Your task to perform on an android device: Set the phone to "Do not disturb". Image 0: 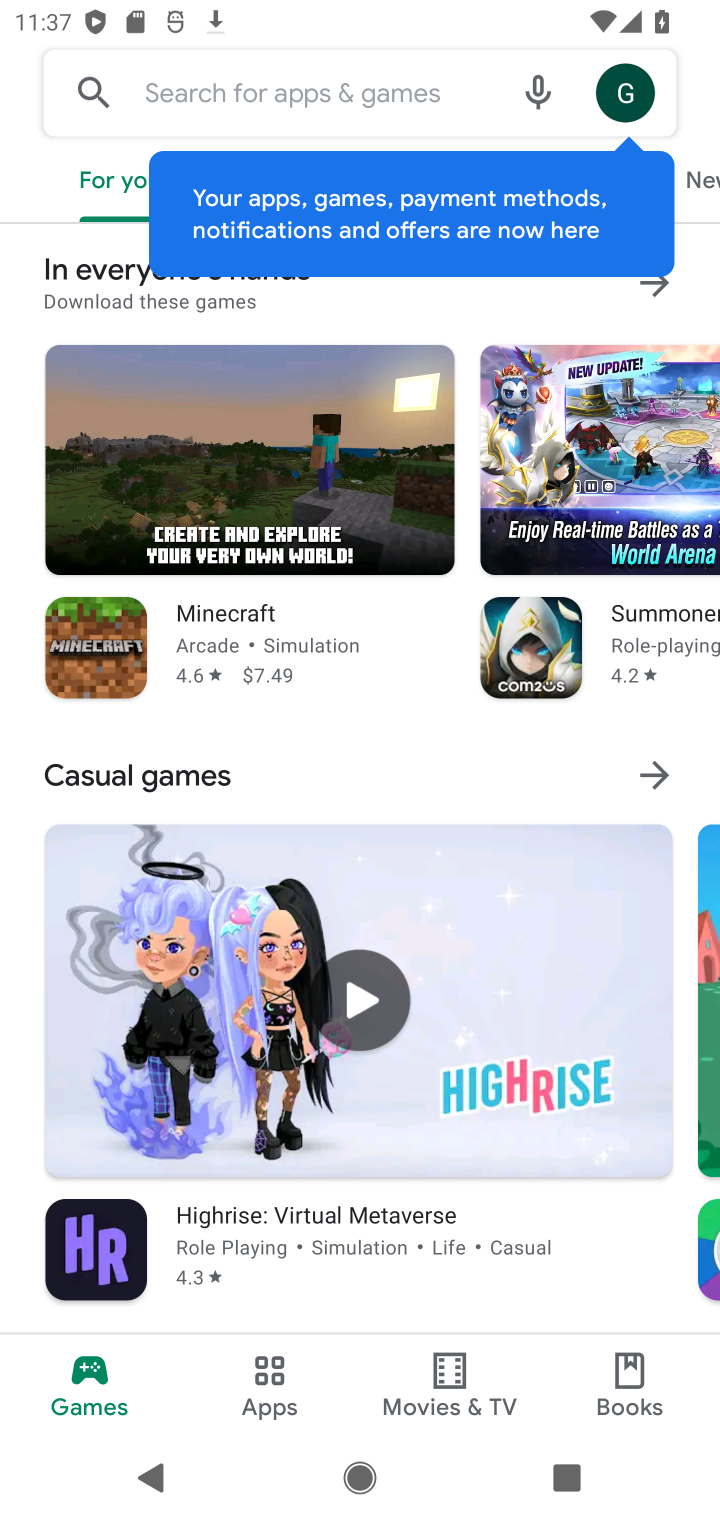
Step 0: press home button
Your task to perform on an android device: Set the phone to "Do not disturb". Image 1: 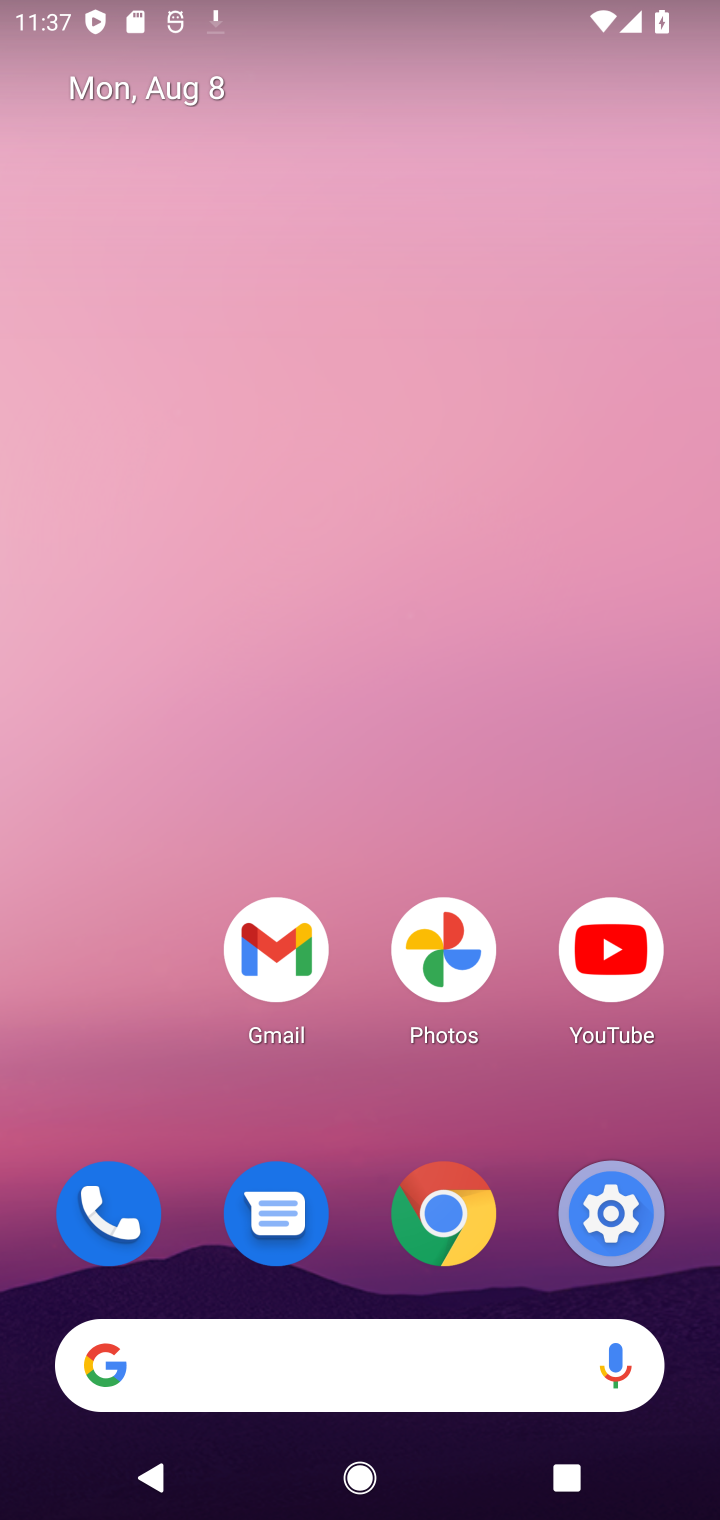
Step 1: press home button
Your task to perform on an android device: Set the phone to "Do not disturb". Image 2: 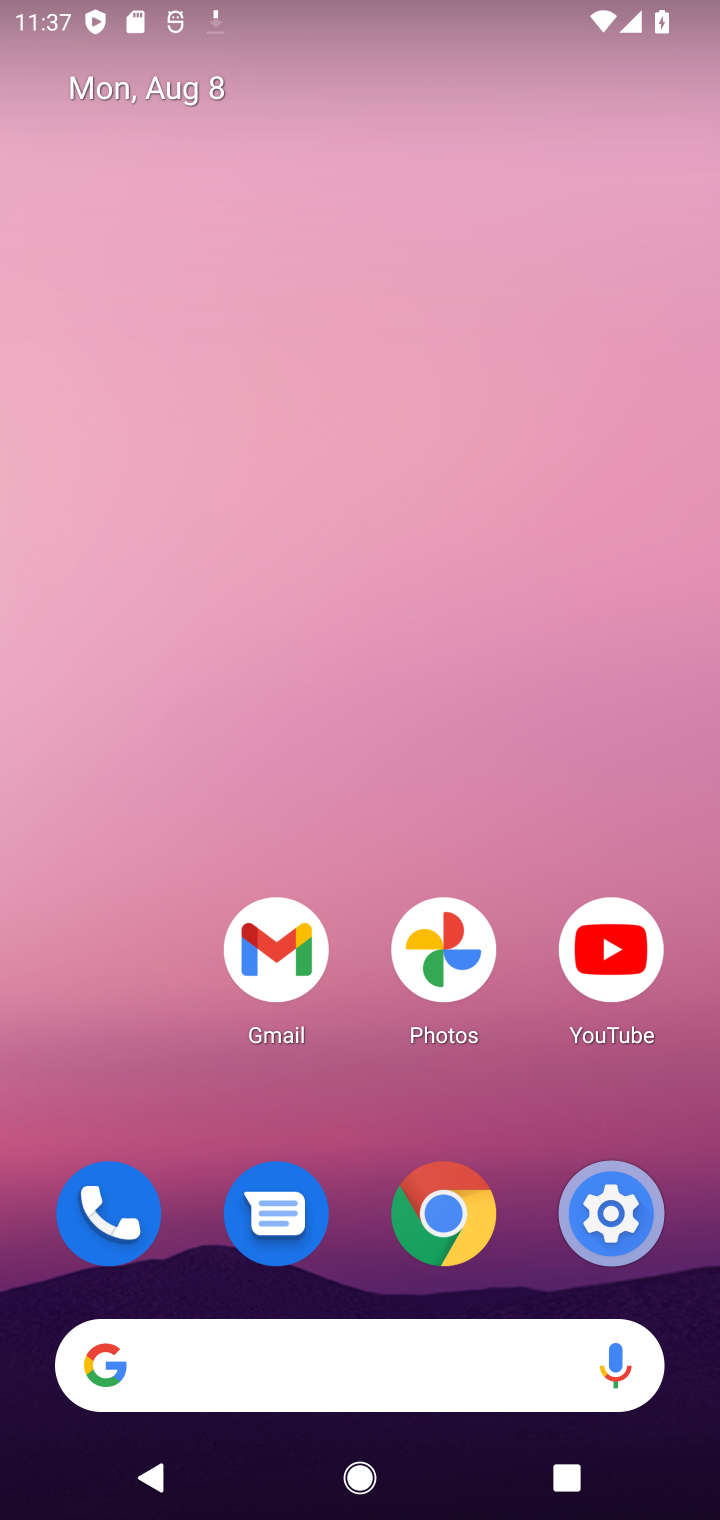
Step 2: drag from (363, 18) to (425, 1018)
Your task to perform on an android device: Set the phone to "Do not disturb". Image 3: 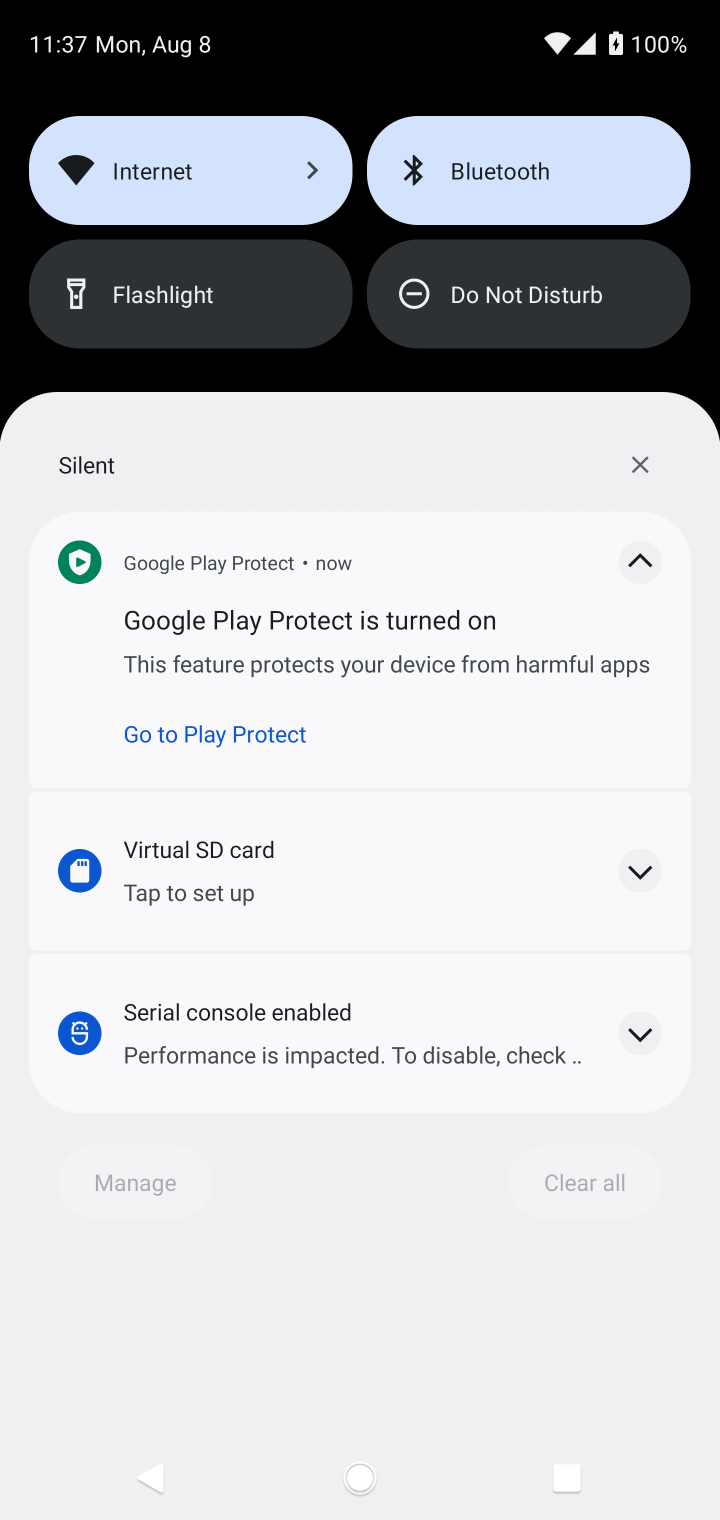
Step 3: click (504, 295)
Your task to perform on an android device: Set the phone to "Do not disturb". Image 4: 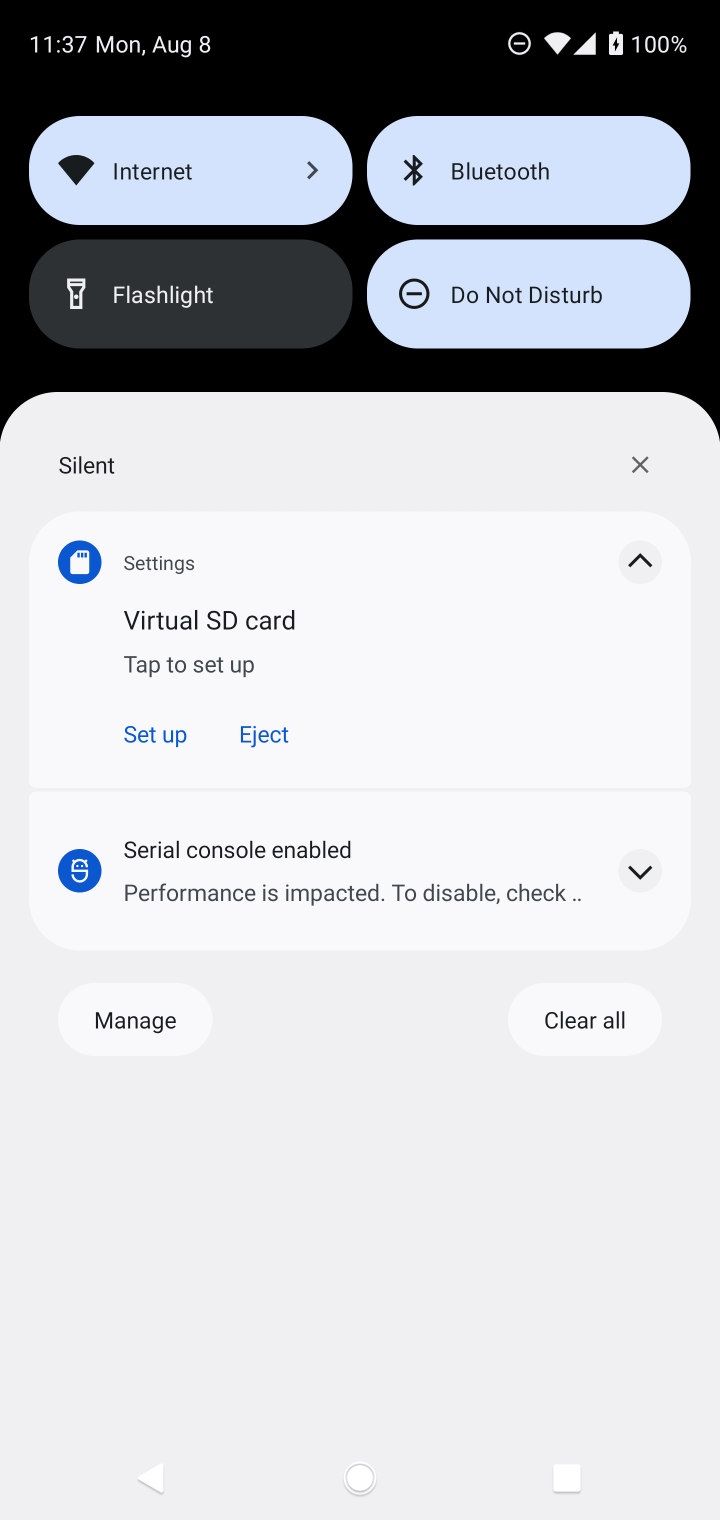
Step 4: task complete